Your task to perform on an android device: Go to internet settings Image 0: 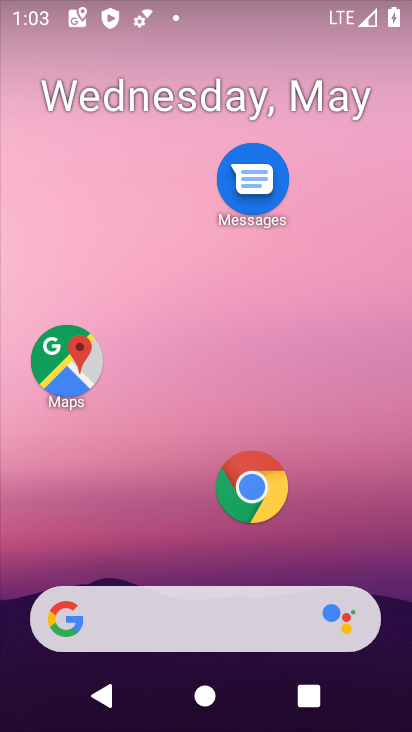
Step 0: drag from (160, 539) to (186, 23)
Your task to perform on an android device: Go to internet settings Image 1: 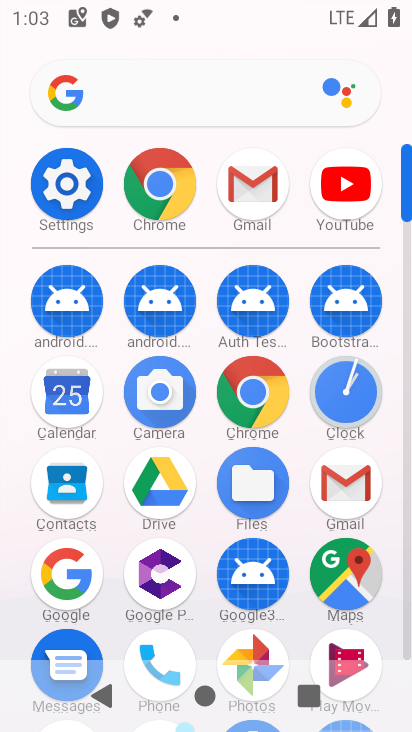
Step 1: click (73, 216)
Your task to perform on an android device: Go to internet settings Image 2: 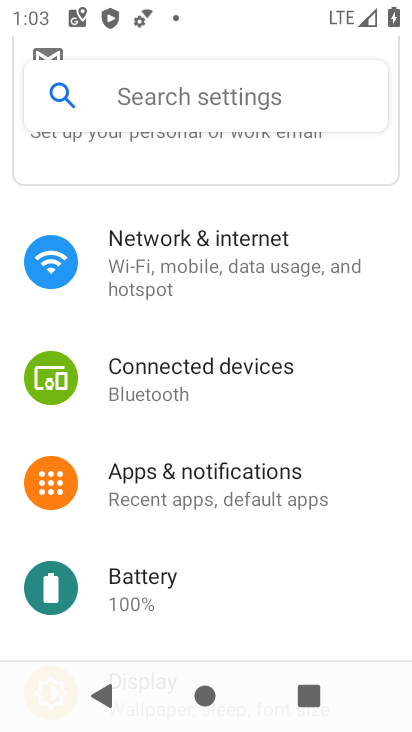
Step 2: click (219, 304)
Your task to perform on an android device: Go to internet settings Image 3: 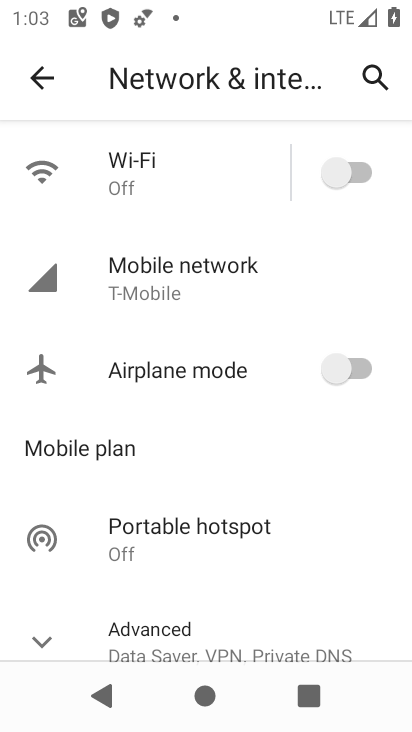
Step 3: task complete